Your task to perform on an android device: turn on javascript in the chrome app Image 0: 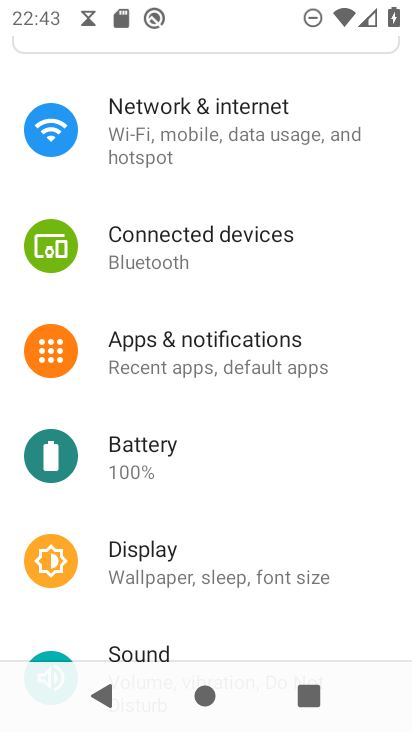
Step 0: press home button
Your task to perform on an android device: turn on javascript in the chrome app Image 1: 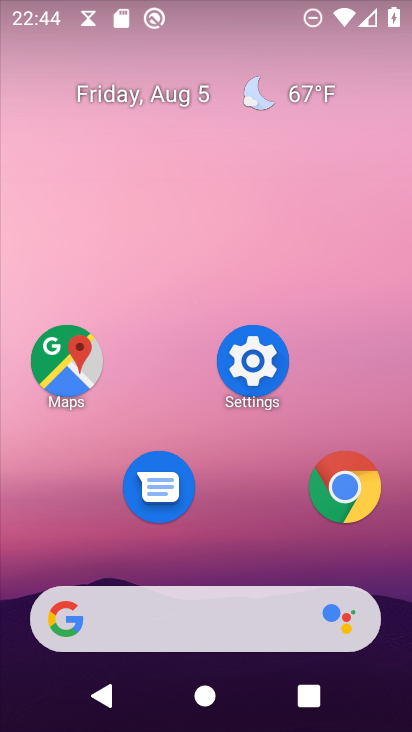
Step 1: click (340, 495)
Your task to perform on an android device: turn on javascript in the chrome app Image 2: 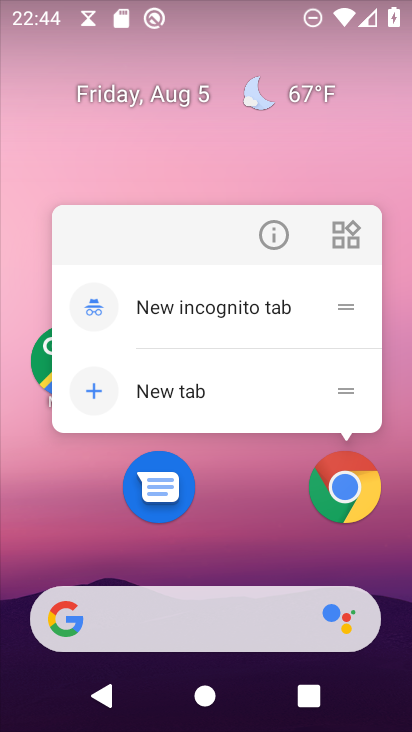
Step 2: click (340, 498)
Your task to perform on an android device: turn on javascript in the chrome app Image 3: 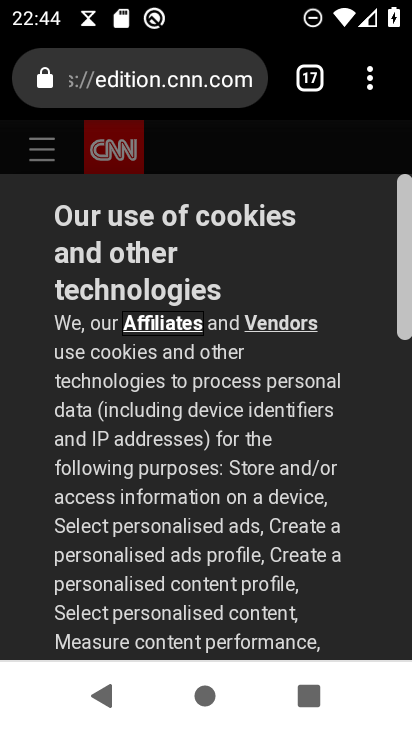
Step 3: drag from (374, 86) to (223, 152)
Your task to perform on an android device: turn on javascript in the chrome app Image 4: 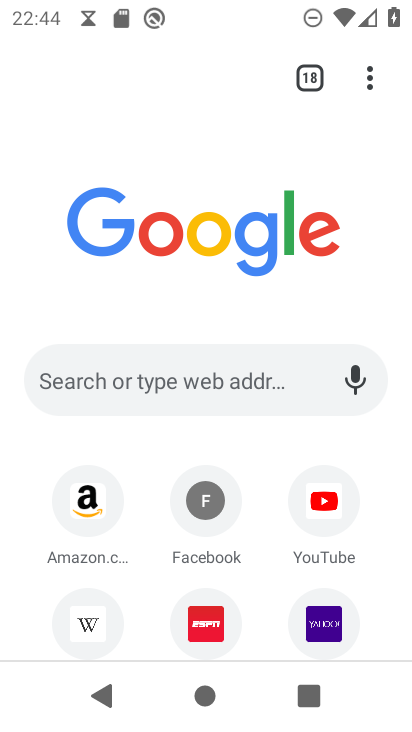
Step 4: drag from (375, 72) to (199, 544)
Your task to perform on an android device: turn on javascript in the chrome app Image 5: 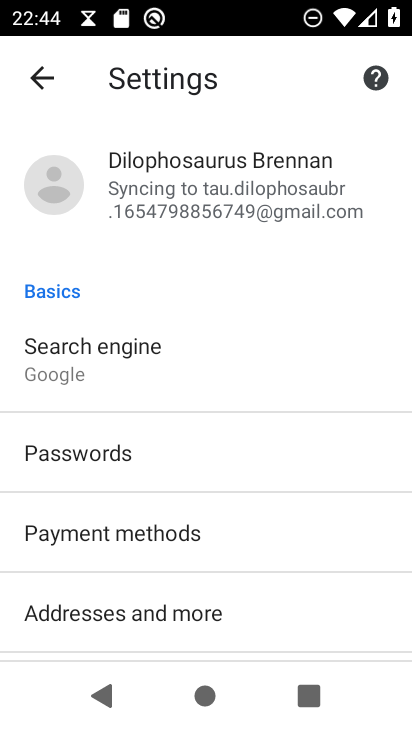
Step 5: drag from (289, 566) to (244, 128)
Your task to perform on an android device: turn on javascript in the chrome app Image 6: 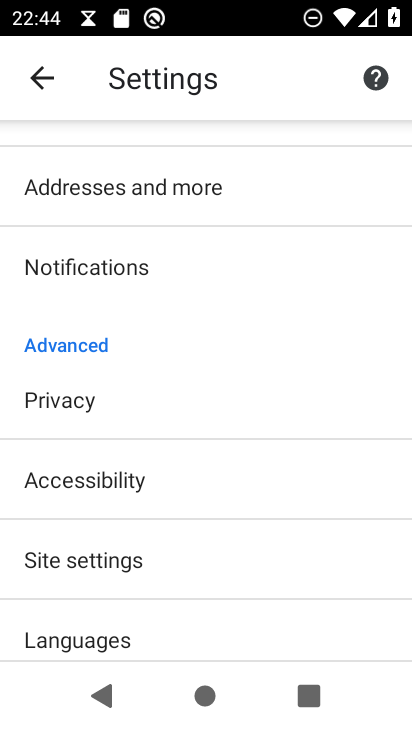
Step 6: click (106, 556)
Your task to perform on an android device: turn on javascript in the chrome app Image 7: 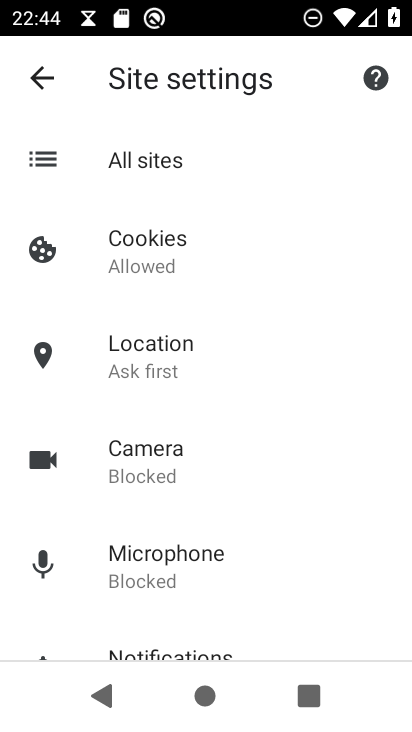
Step 7: drag from (242, 486) to (296, 124)
Your task to perform on an android device: turn on javascript in the chrome app Image 8: 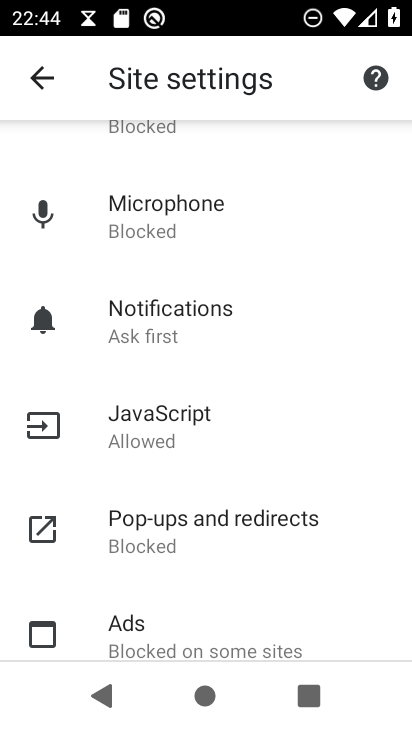
Step 8: click (140, 428)
Your task to perform on an android device: turn on javascript in the chrome app Image 9: 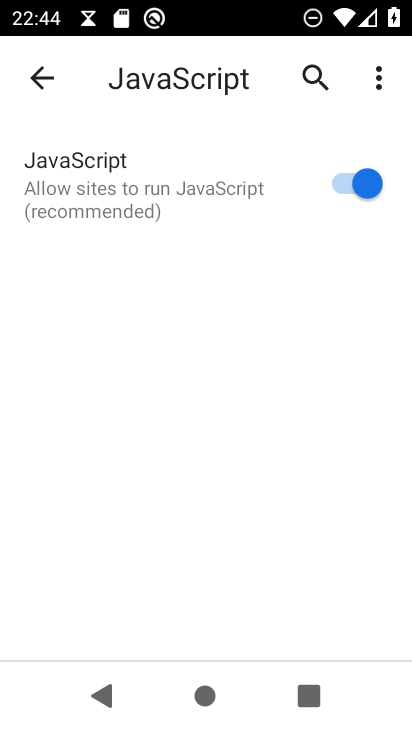
Step 9: task complete